Your task to perform on an android device: toggle improve location accuracy Image 0: 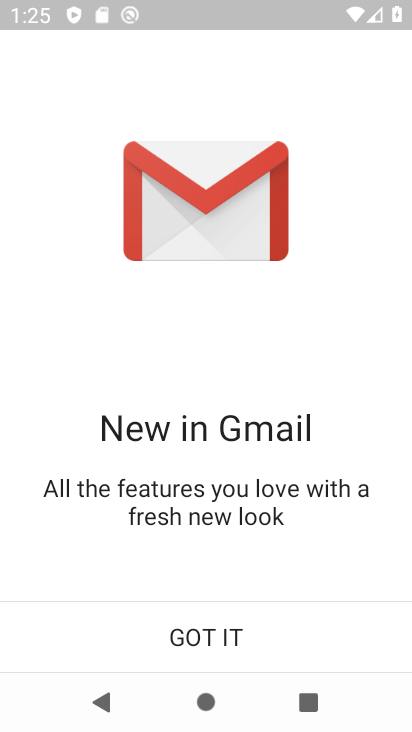
Step 0: press home button
Your task to perform on an android device: toggle improve location accuracy Image 1: 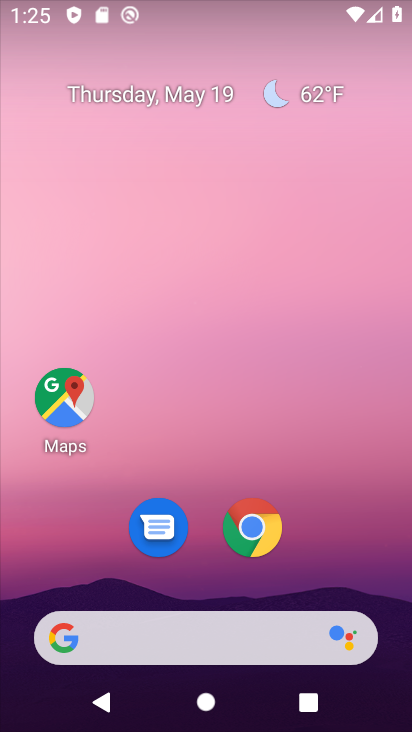
Step 1: drag from (348, 445) to (371, 128)
Your task to perform on an android device: toggle improve location accuracy Image 2: 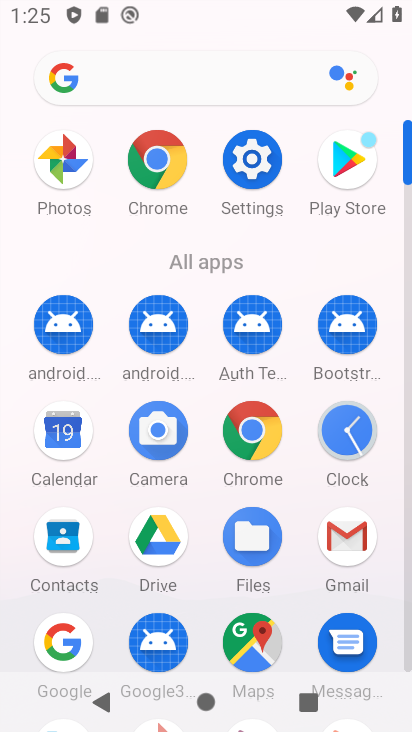
Step 2: click (248, 191)
Your task to perform on an android device: toggle improve location accuracy Image 3: 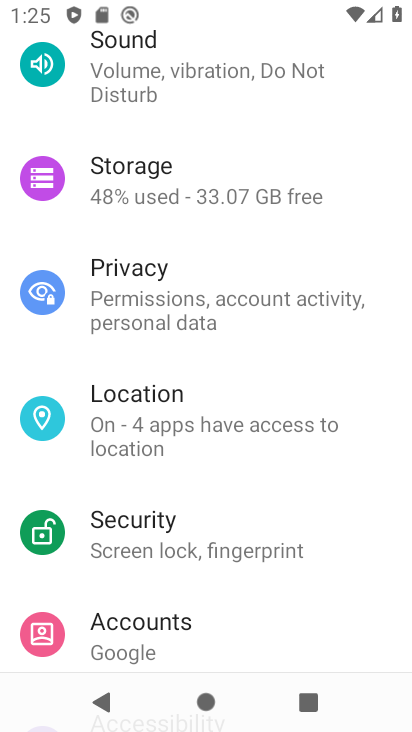
Step 3: click (145, 410)
Your task to perform on an android device: toggle improve location accuracy Image 4: 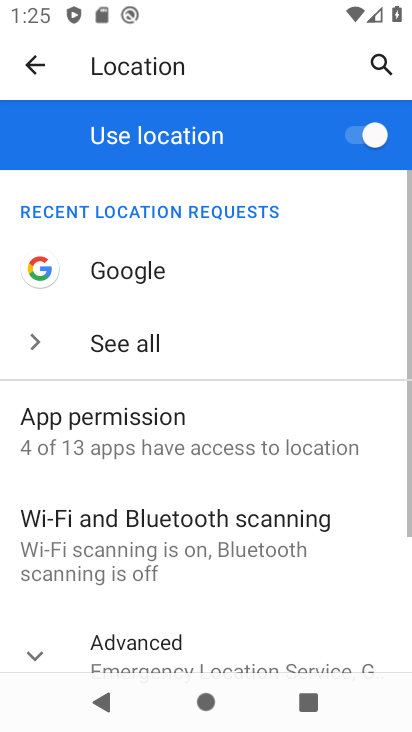
Step 4: drag from (305, 634) to (365, 322)
Your task to perform on an android device: toggle improve location accuracy Image 5: 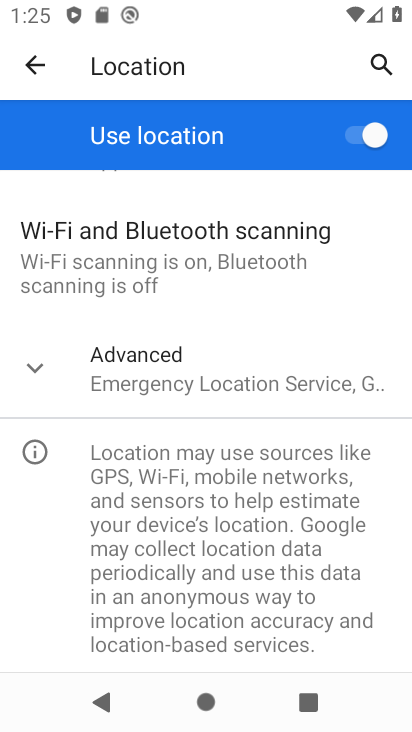
Step 5: click (298, 396)
Your task to perform on an android device: toggle improve location accuracy Image 6: 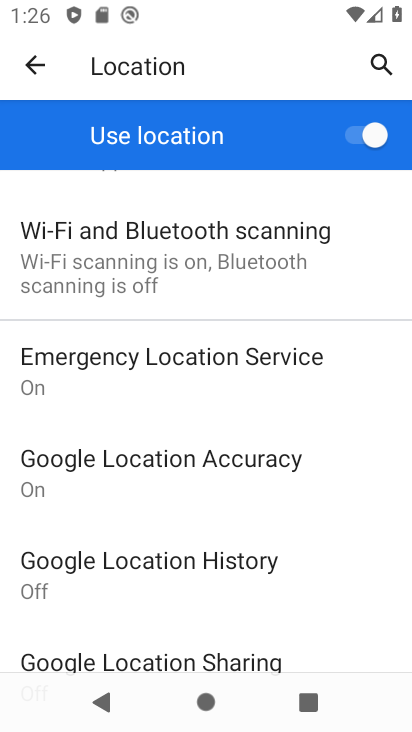
Step 6: click (253, 464)
Your task to perform on an android device: toggle improve location accuracy Image 7: 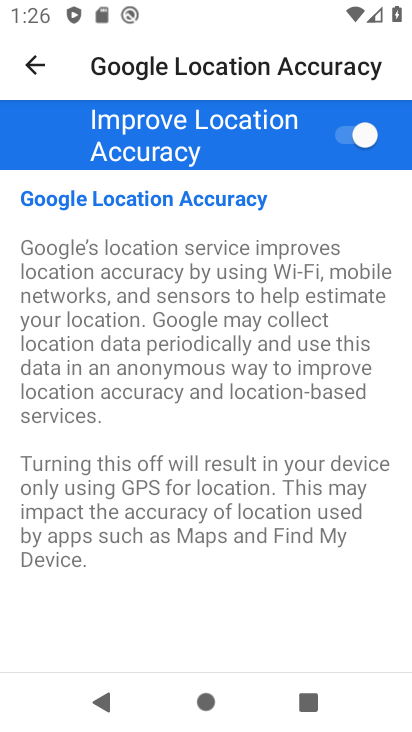
Step 7: click (343, 139)
Your task to perform on an android device: toggle improve location accuracy Image 8: 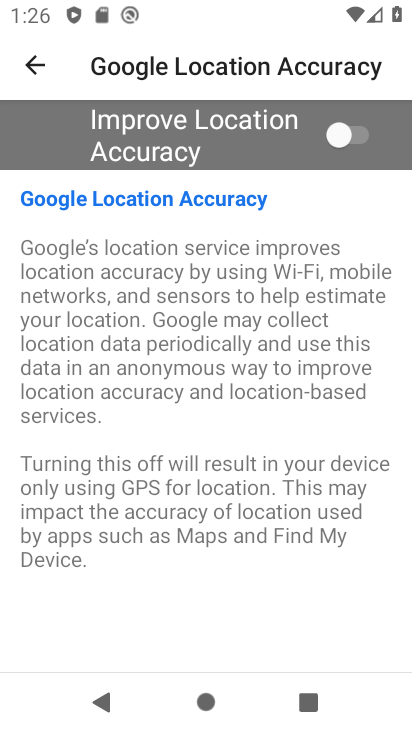
Step 8: task complete